Your task to perform on an android device: open app "Booking.com: Hotels and more" (install if not already installed) and go to login screen Image 0: 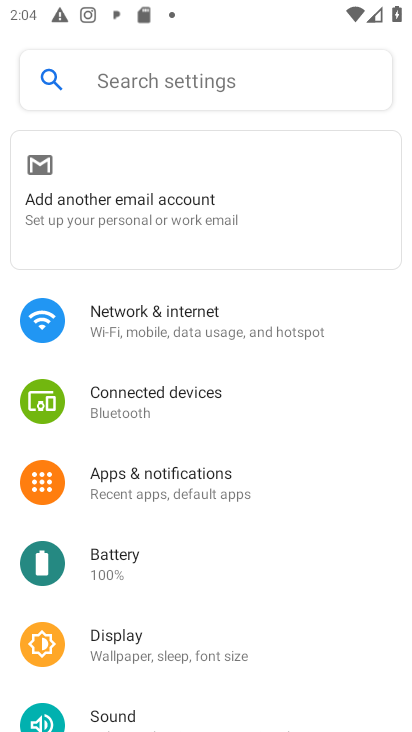
Step 0: press home button
Your task to perform on an android device: open app "Booking.com: Hotels and more" (install if not already installed) and go to login screen Image 1: 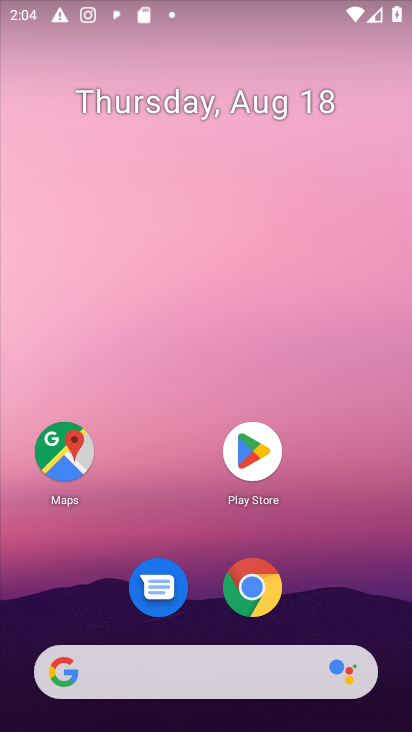
Step 1: click (247, 447)
Your task to perform on an android device: open app "Booking.com: Hotels and more" (install if not already installed) and go to login screen Image 2: 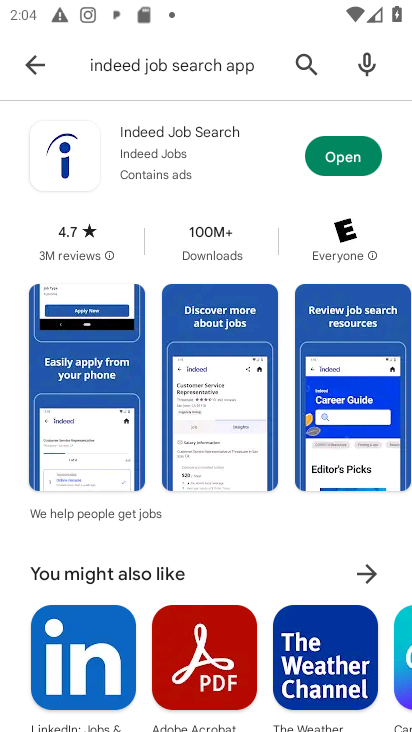
Step 2: click (303, 69)
Your task to perform on an android device: open app "Booking.com: Hotels and more" (install if not already installed) and go to login screen Image 3: 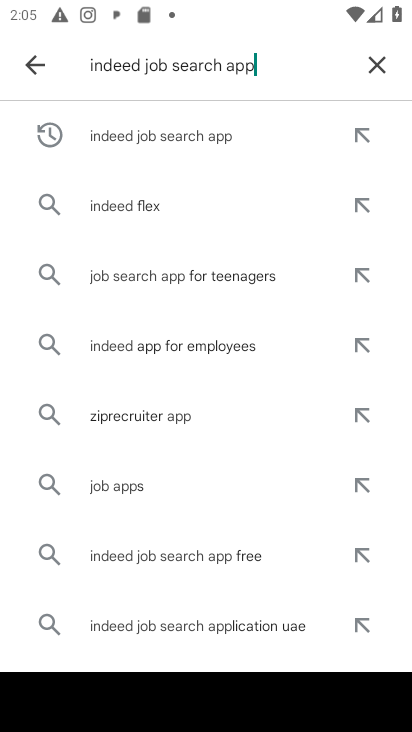
Step 3: click (376, 67)
Your task to perform on an android device: open app "Booking.com: Hotels and more" (install if not already installed) and go to login screen Image 4: 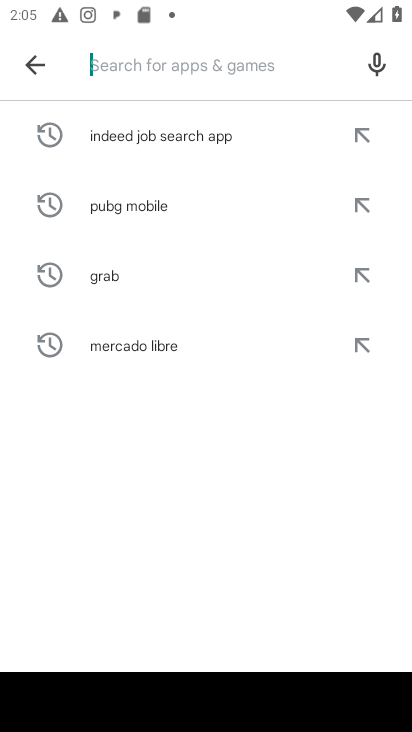
Step 4: type "Booking.com: Hotels and more"
Your task to perform on an android device: open app "Booking.com: Hotels and more" (install if not already installed) and go to login screen Image 5: 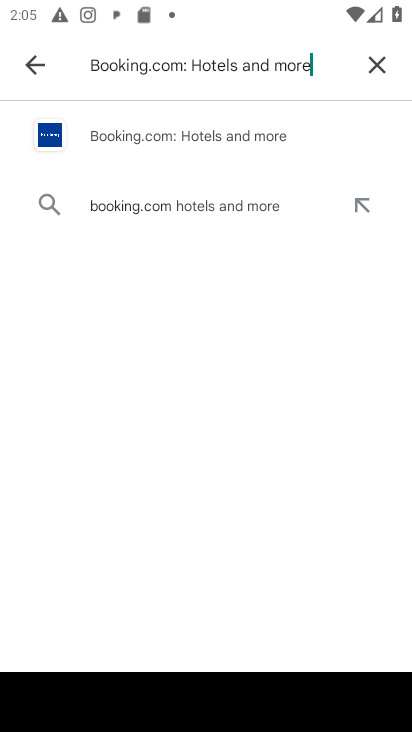
Step 5: click (236, 139)
Your task to perform on an android device: open app "Booking.com: Hotels and more" (install if not already installed) and go to login screen Image 6: 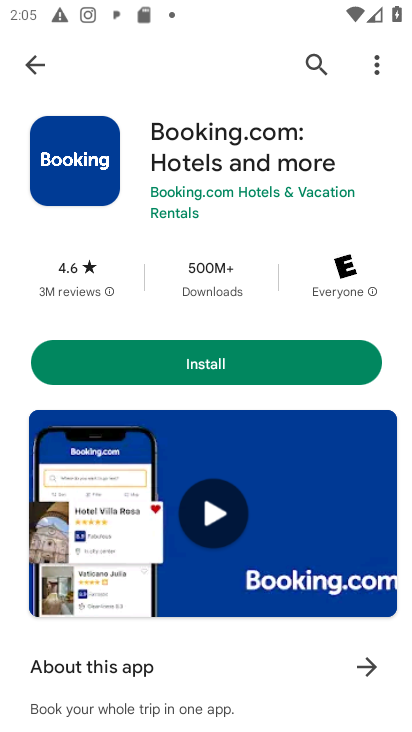
Step 6: click (235, 360)
Your task to perform on an android device: open app "Booking.com: Hotels and more" (install if not already installed) and go to login screen Image 7: 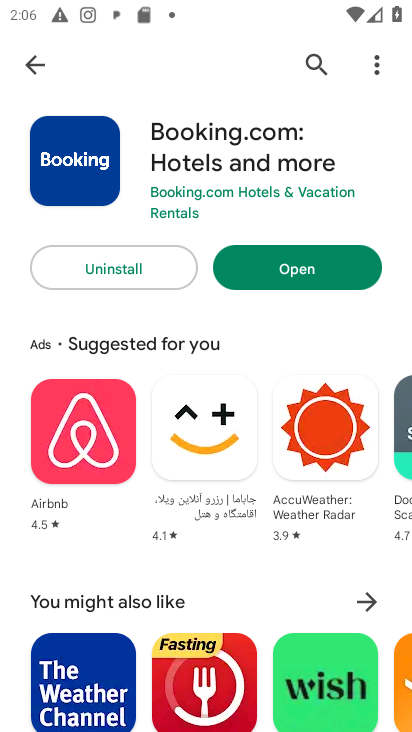
Step 7: click (277, 266)
Your task to perform on an android device: open app "Booking.com: Hotels and more" (install if not already installed) and go to login screen Image 8: 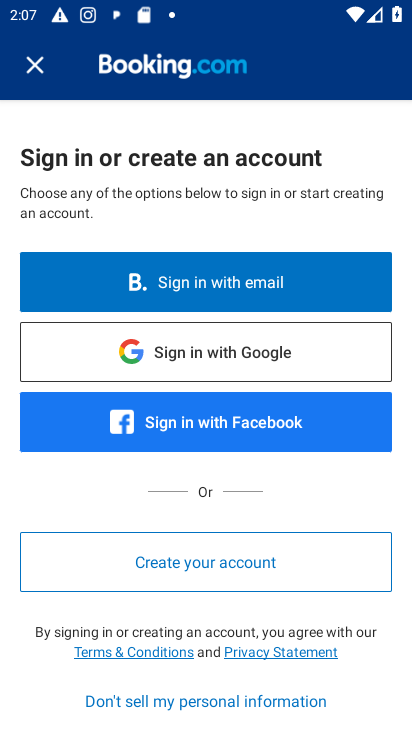
Step 8: task complete